Your task to perform on an android device: Go to Google maps Image 0: 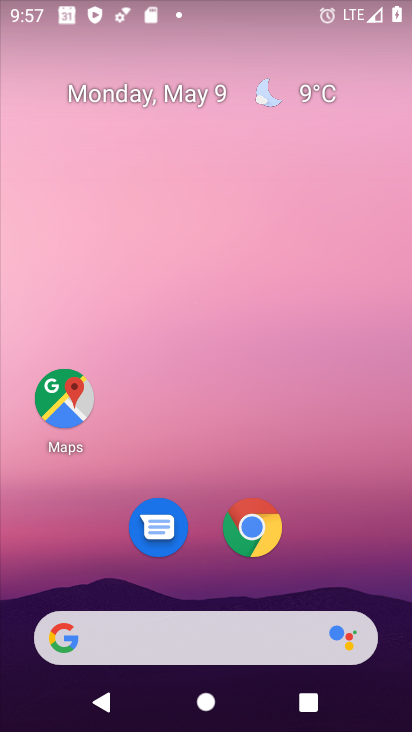
Step 0: click (60, 400)
Your task to perform on an android device: Go to Google maps Image 1: 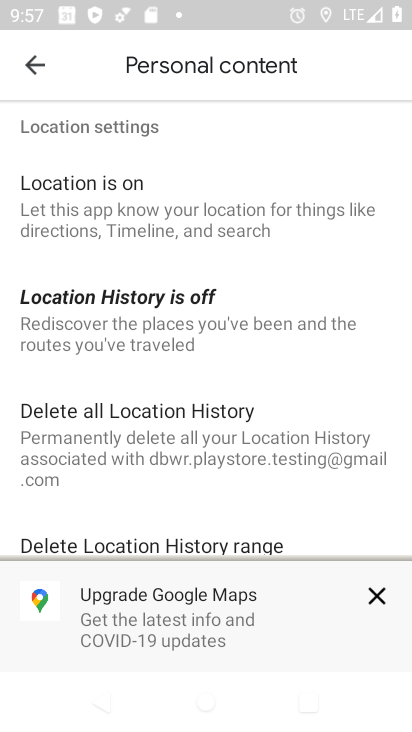
Step 1: task complete